Your task to perform on an android device: turn on the 24-hour format for clock Image 0: 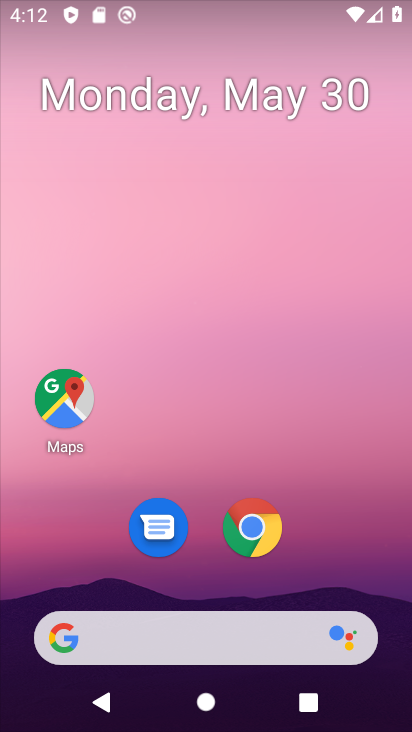
Step 0: drag from (232, 728) to (230, 133)
Your task to perform on an android device: turn on the 24-hour format for clock Image 1: 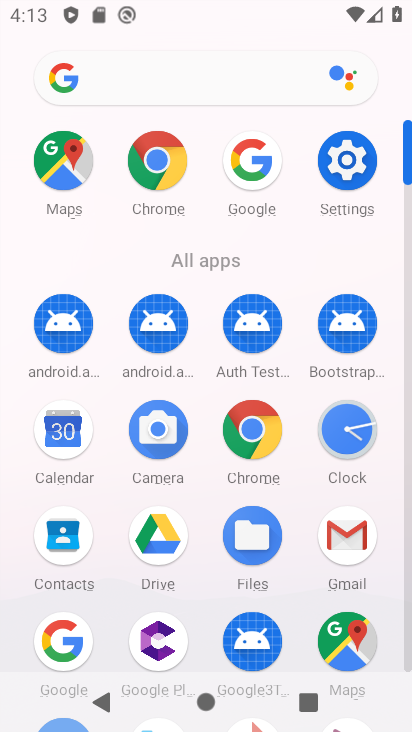
Step 1: click (336, 428)
Your task to perform on an android device: turn on the 24-hour format for clock Image 2: 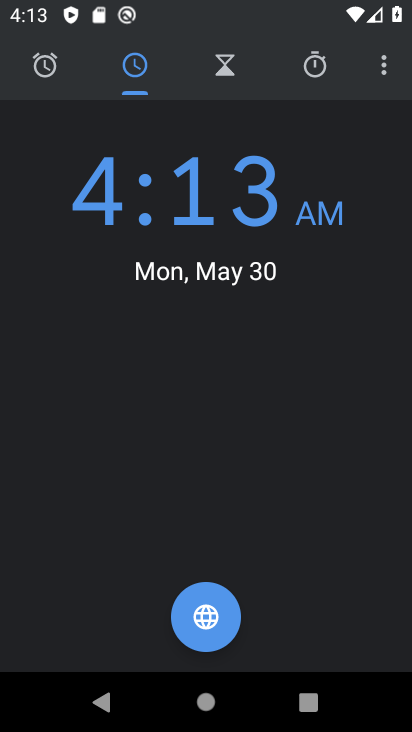
Step 2: click (386, 73)
Your task to perform on an android device: turn on the 24-hour format for clock Image 3: 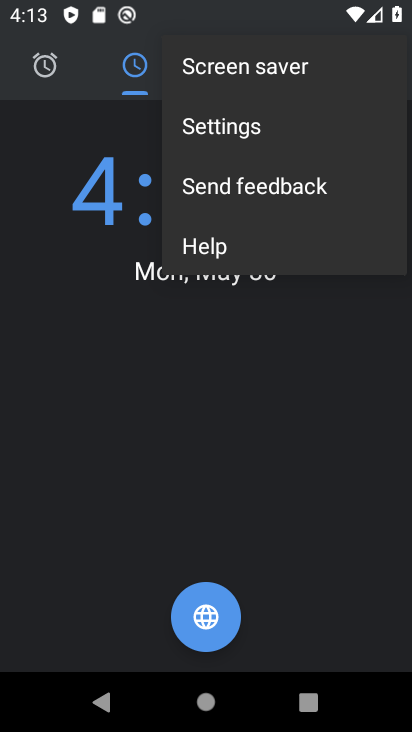
Step 3: click (232, 122)
Your task to perform on an android device: turn on the 24-hour format for clock Image 4: 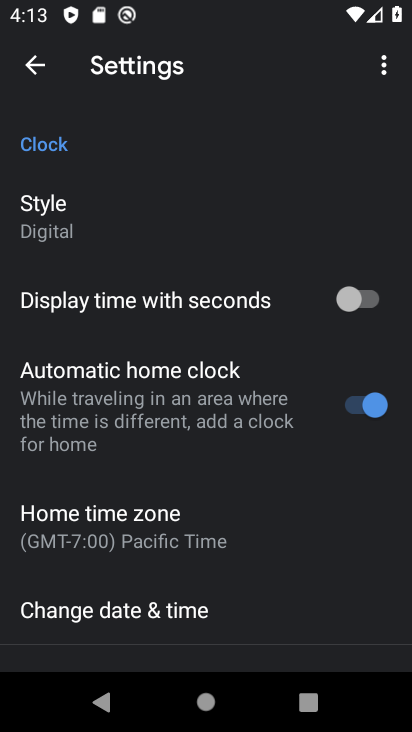
Step 4: drag from (114, 638) to (129, 174)
Your task to perform on an android device: turn on the 24-hour format for clock Image 5: 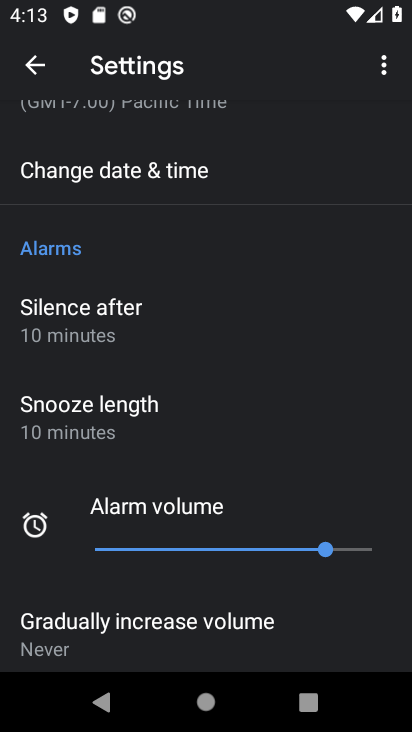
Step 5: drag from (117, 633) to (147, 676)
Your task to perform on an android device: turn on the 24-hour format for clock Image 6: 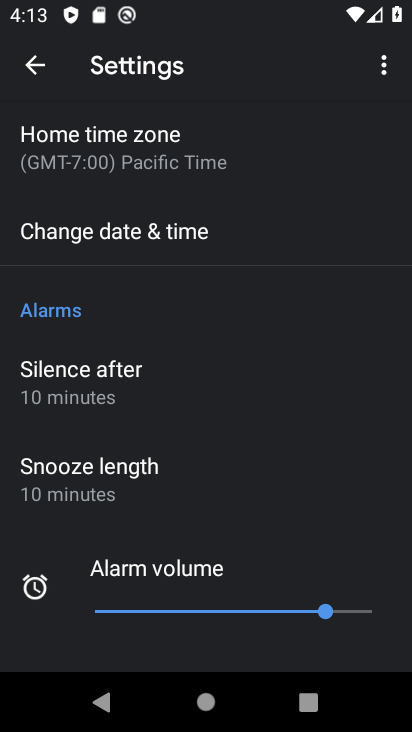
Step 6: drag from (203, 210) to (200, 517)
Your task to perform on an android device: turn on the 24-hour format for clock Image 7: 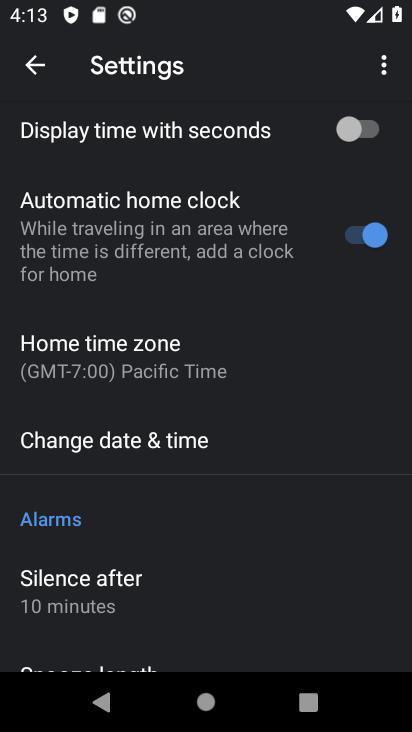
Step 7: click (178, 439)
Your task to perform on an android device: turn on the 24-hour format for clock Image 8: 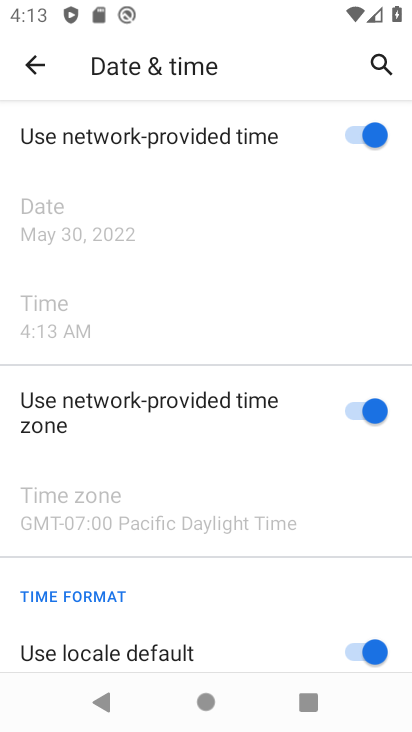
Step 8: click (211, 571)
Your task to perform on an android device: turn on the 24-hour format for clock Image 9: 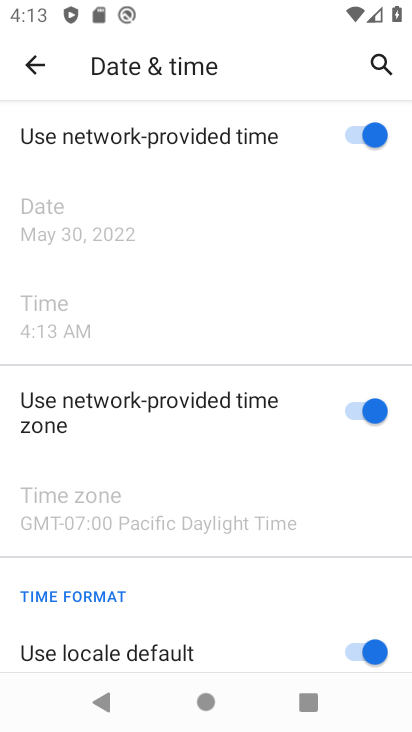
Step 9: drag from (212, 377) to (214, 229)
Your task to perform on an android device: turn on the 24-hour format for clock Image 10: 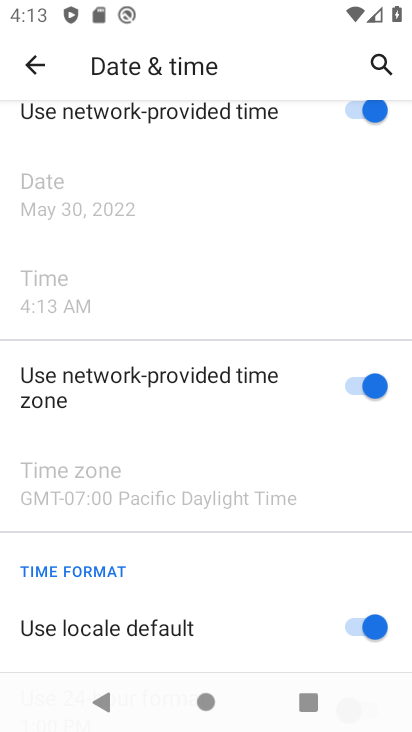
Step 10: drag from (291, 624) to (303, 529)
Your task to perform on an android device: turn on the 24-hour format for clock Image 11: 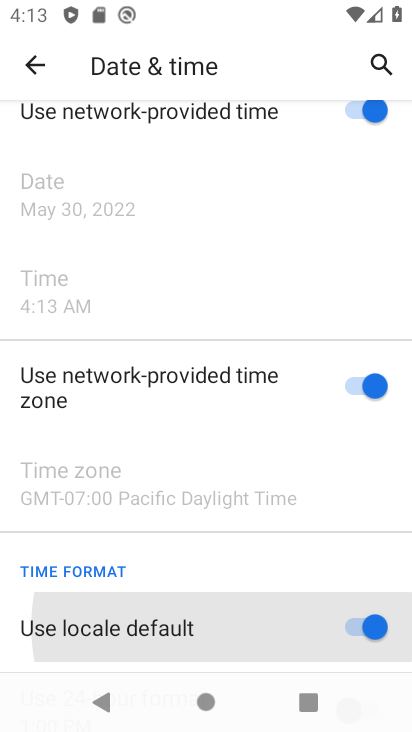
Step 11: drag from (305, 331) to (301, 148)
Your task to perform on an android device: turn on the 24-hour format for clock Image 12: 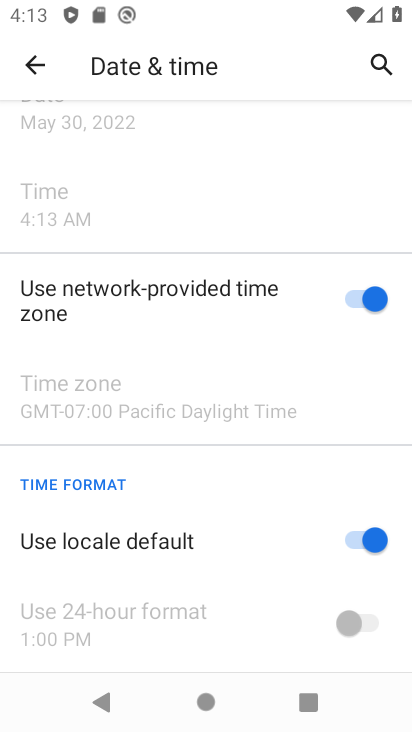
Step 12: click (350, 532)
Your task to perform on an android device: turn on the 24-hour format for clock Image 13: 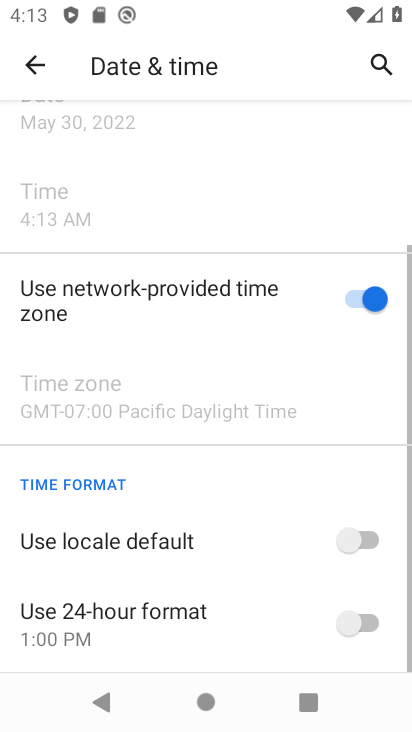
Step 13: click (370, 624)
Your task to perform on an android device: turn on the 24-hour format for clock Image 14: 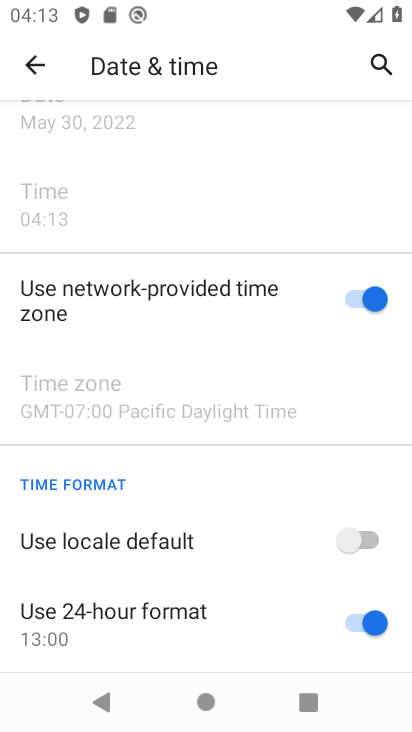
Step 14: task complete